Your task to perform on an android device: Go to wifi settings Image 0: 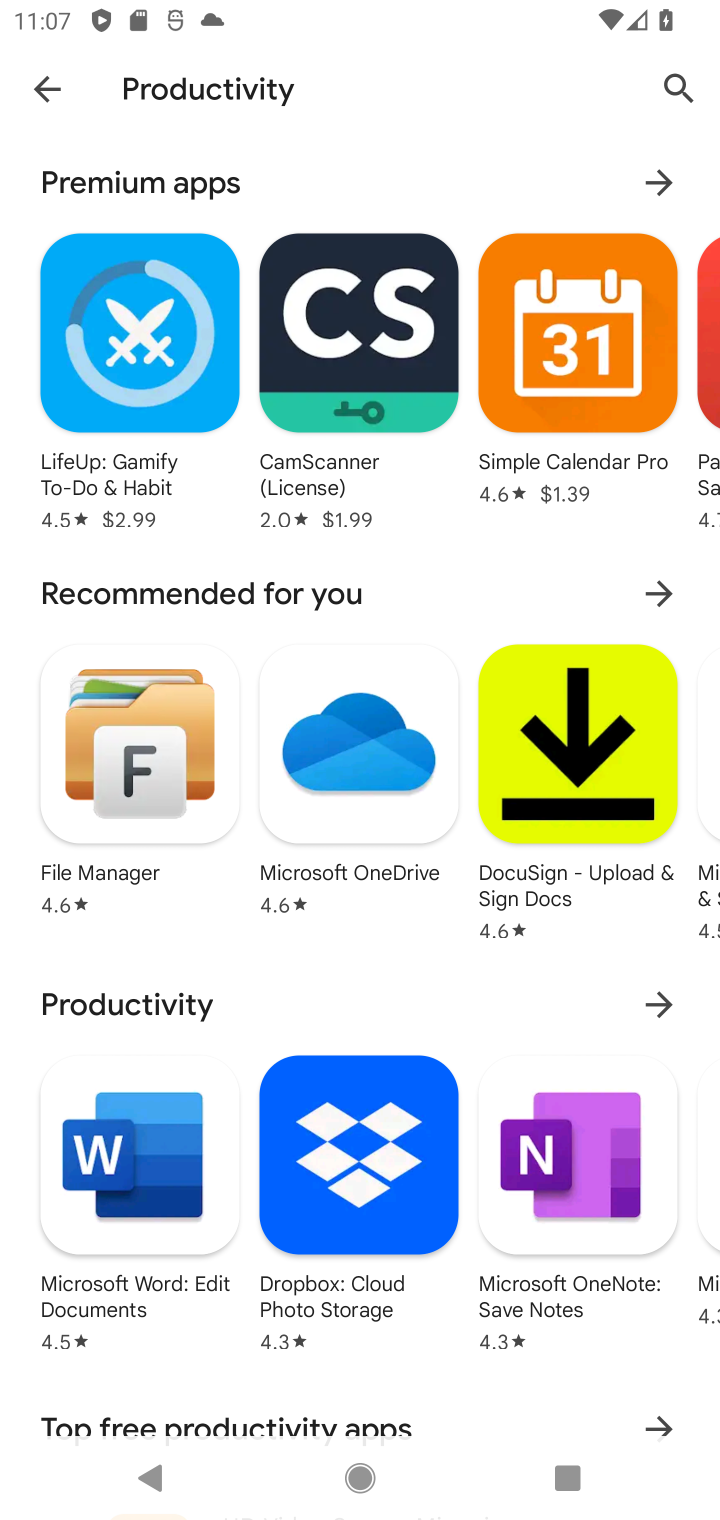
Step 0: press home button
Your task to perform on an android device: Go to wifi settings Image 1: 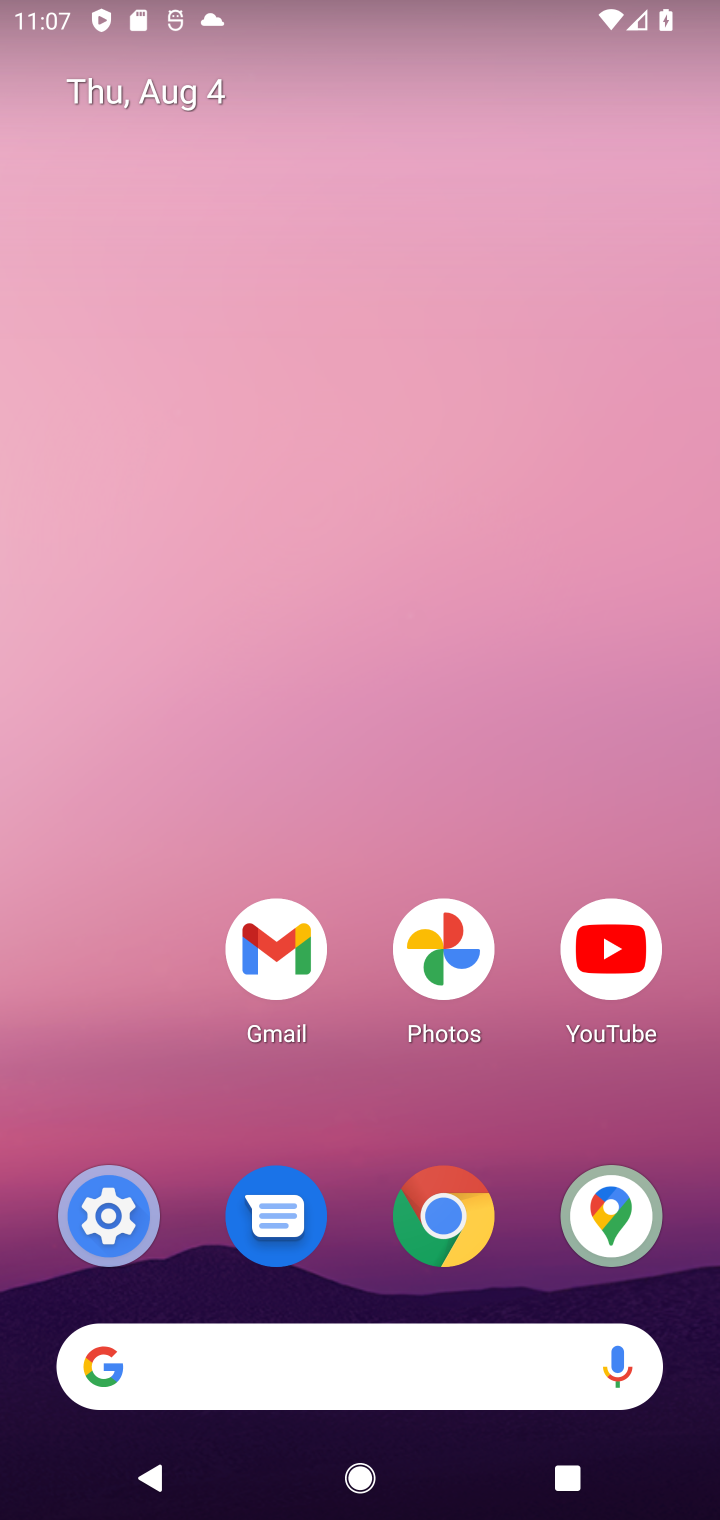
Step 1: drag from (343, 1373) to (350, 33)
Your task to perform on an android device: Go to wifi settings Image 2: 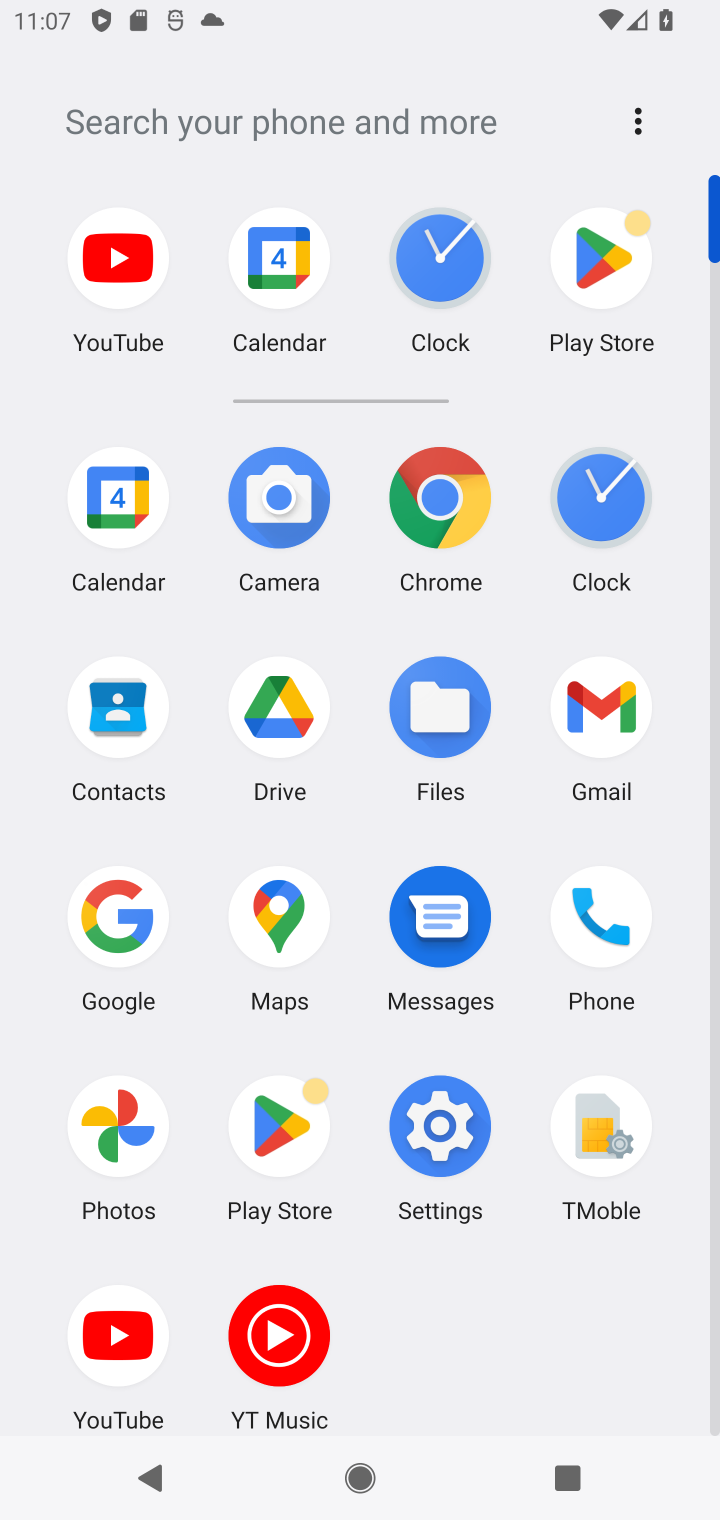
Step 2: click (436, 1127)
Your task to perform on an android device: Go to wifi settings Image 3: 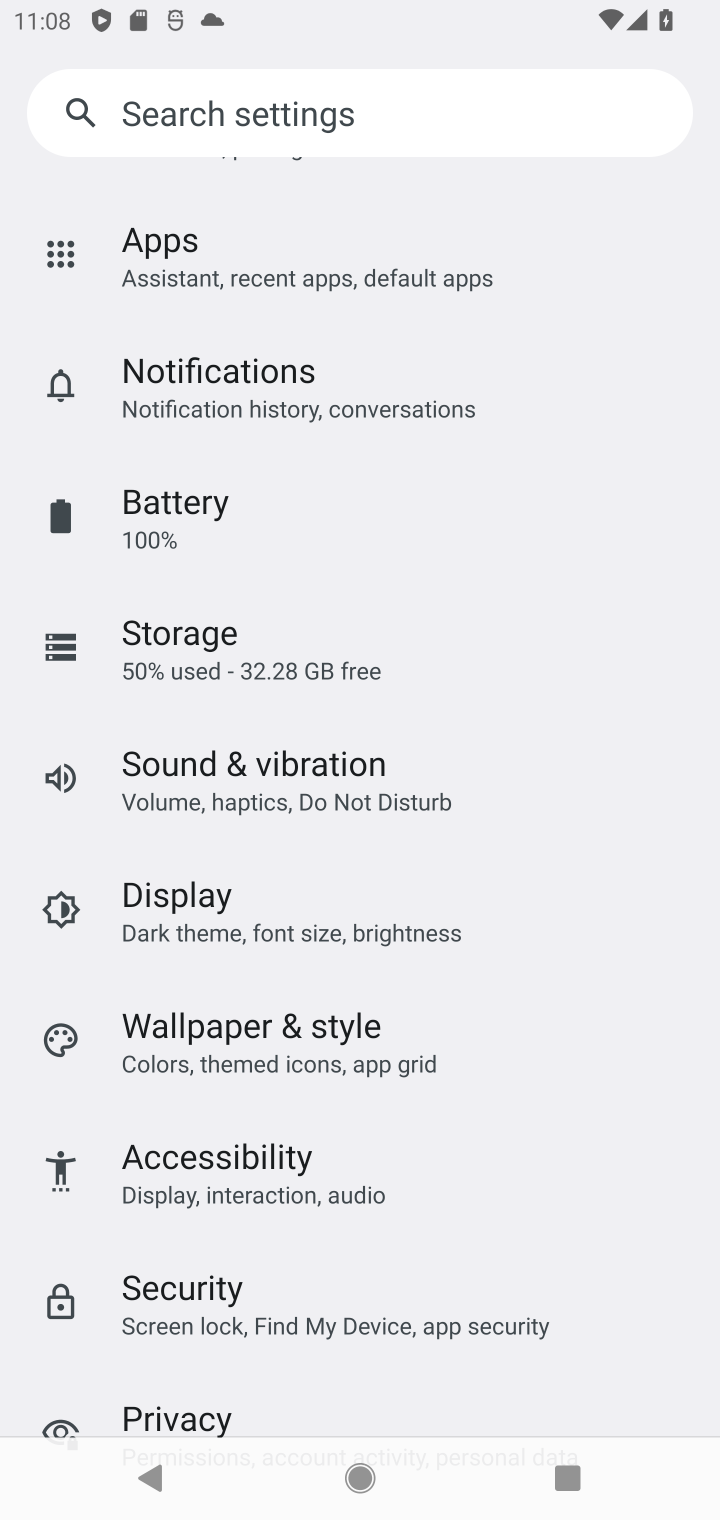
Step 3: drag from (296, 291) to (290, 1004)
Your task to perform on an android device: Go to wifi settings Image 4: 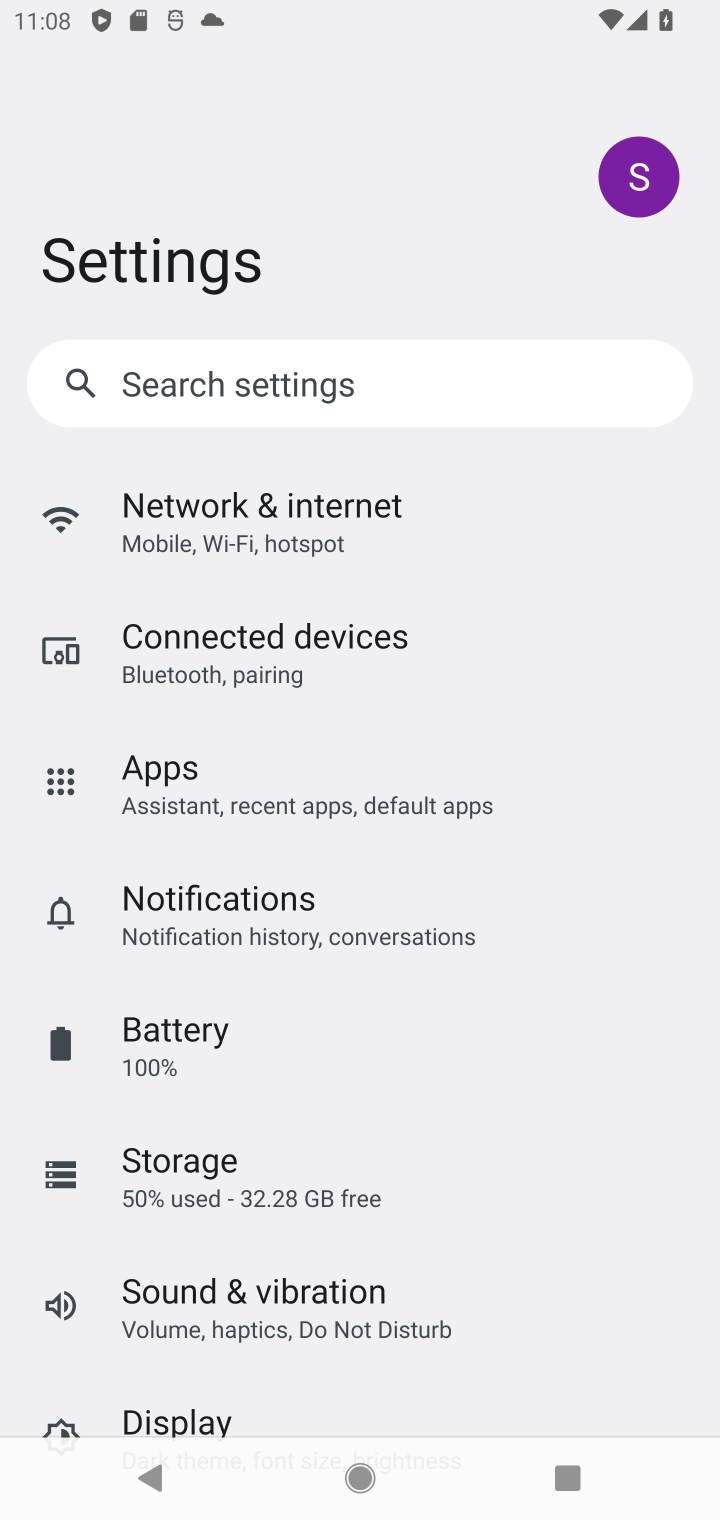
Step 4: click (264, 520)
Your task to perform on an android device: Go to wifi settings Image 5: 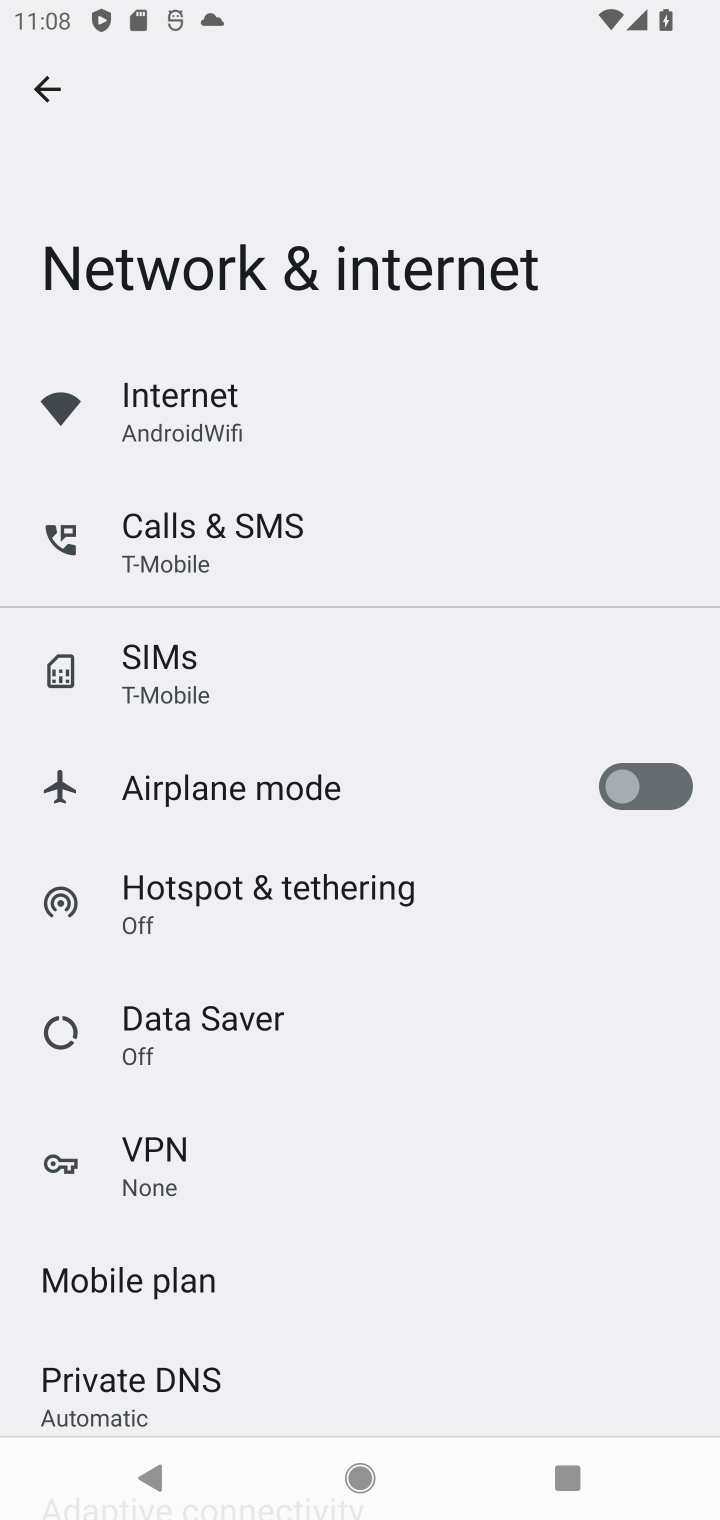
Step 5: click (188, 425)
Your task to perform on an android device: Go to wifi settings Image 6: 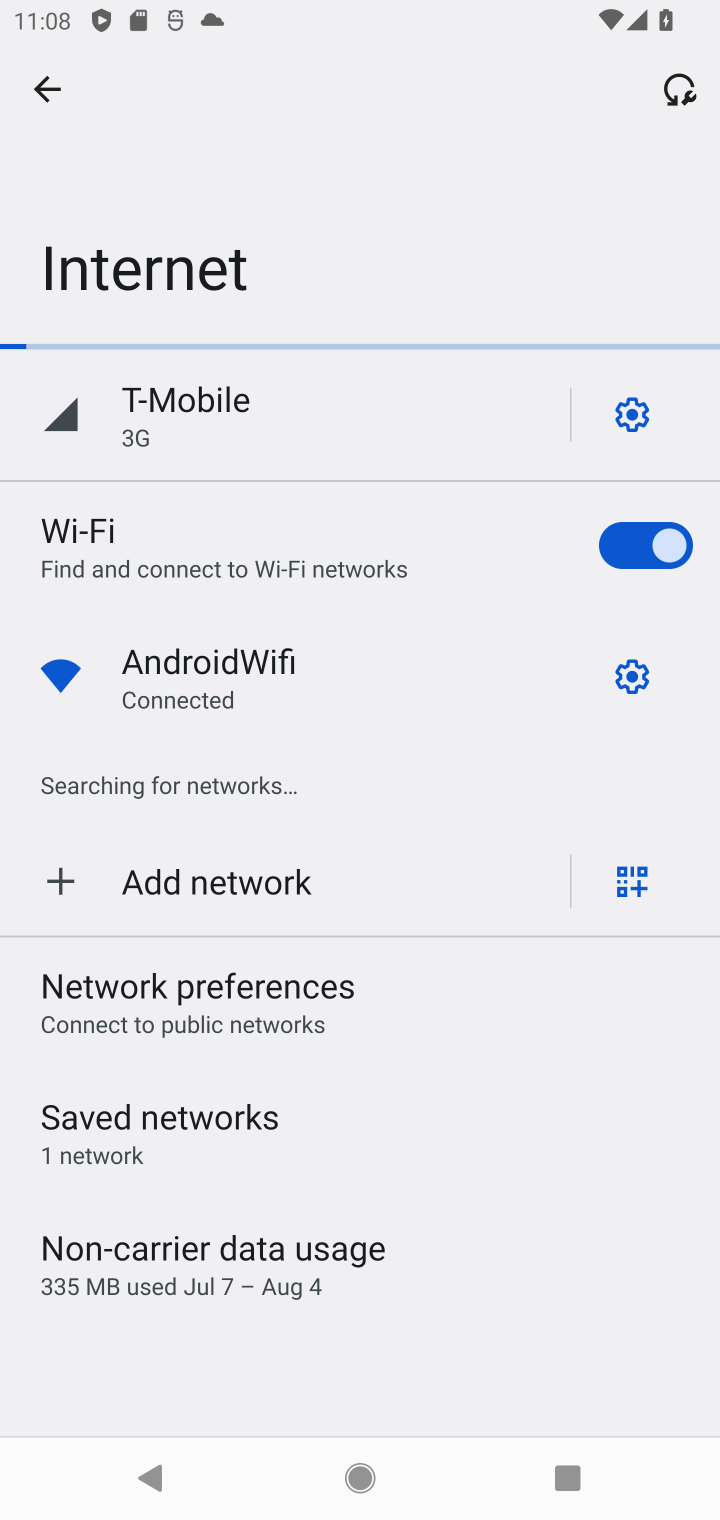
Step 6: click (631, 662)
Your task to perform on an android device: Go to wifi settings Image 7: 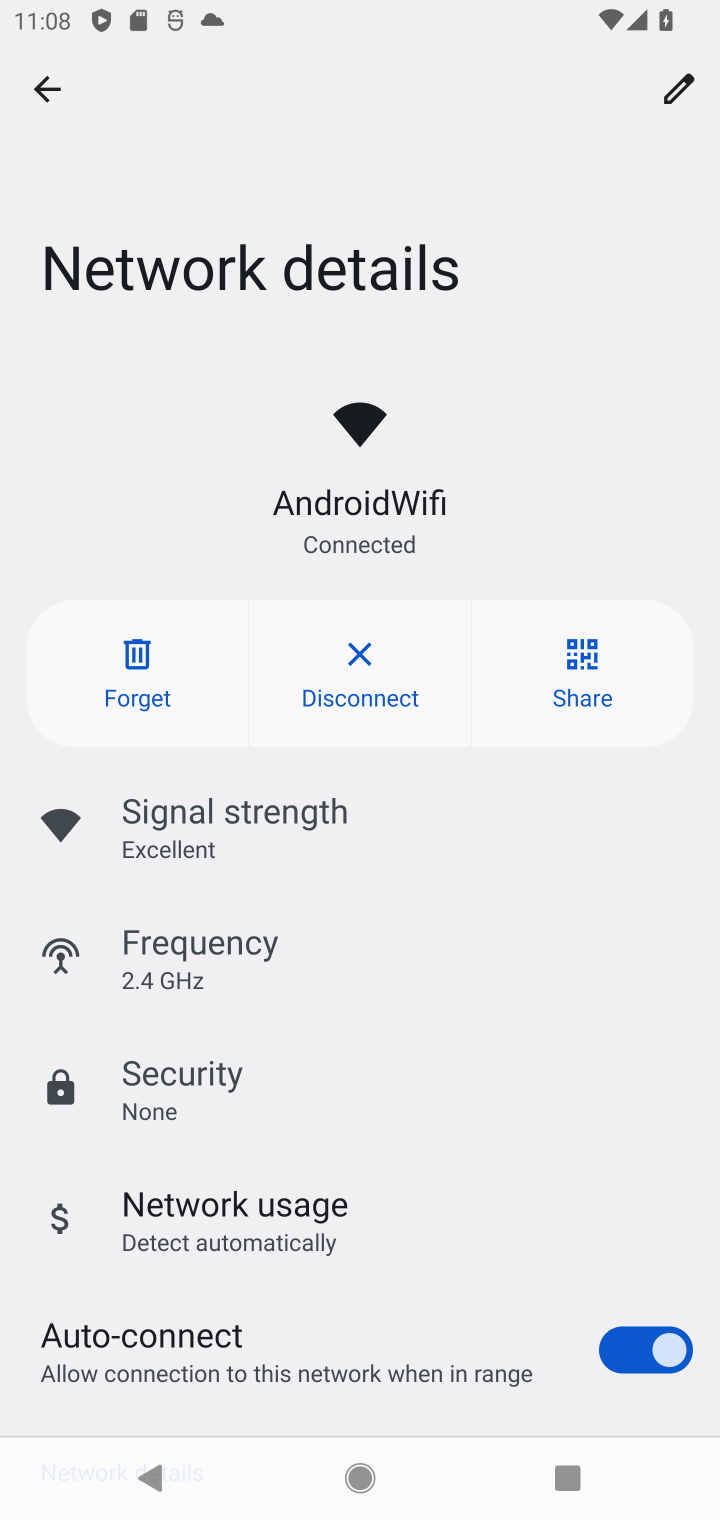
Step 7: task complete